Your task to perform on an android device: Search for seafood restaurants on Google Maps Image 0: 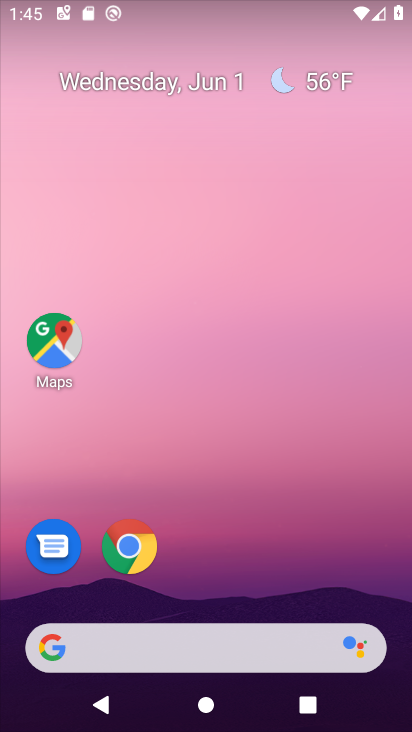
Step 0: click (58, 357)
Your task to perform on an android device: Search for seafood restaurants on Google Maps Image 1: 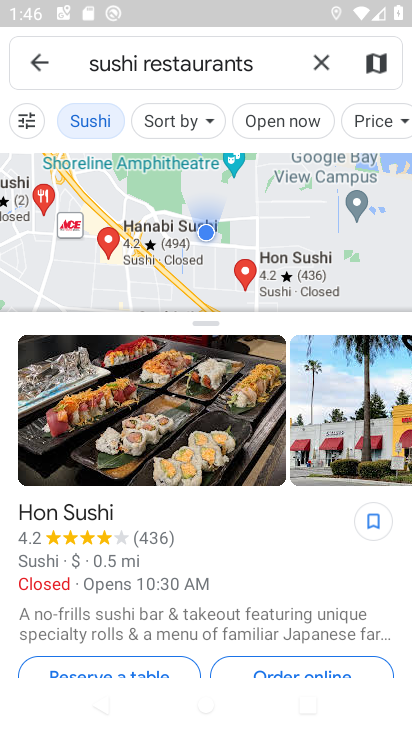
Step 1: click (323, 61)
Your task to perform on an android device: Search for seafood restaurants on Google Maps Image 2: 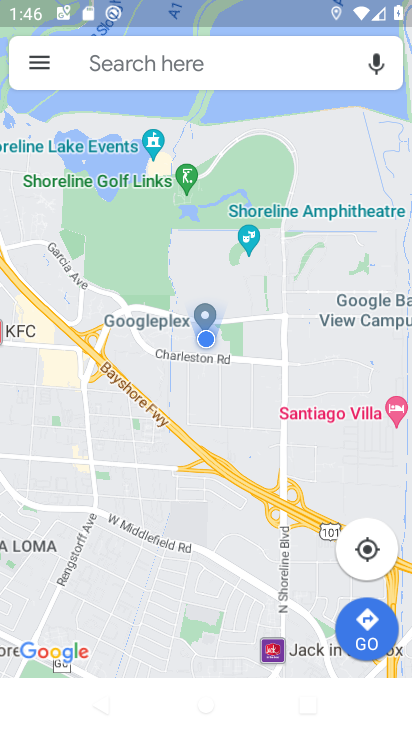
Step 2: type "seafood restaurants"
Your task to perform on an android device: Search for seafood restaurants on Google Maps Image 3: 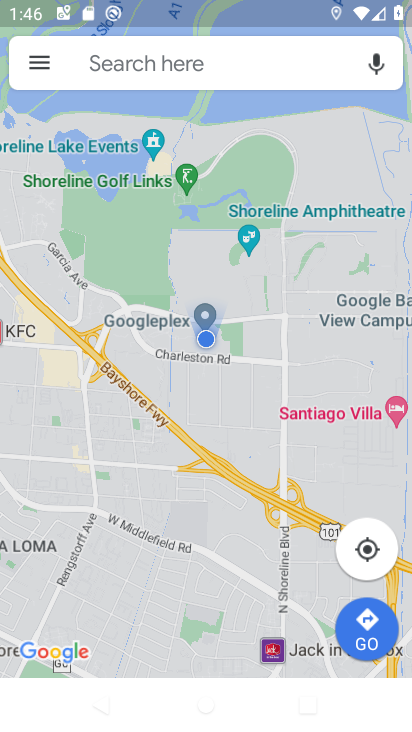
Step 3: click (199, 66)
Your task to perform on an android device: Search for seafood restaurants on Google Maps Image 4: 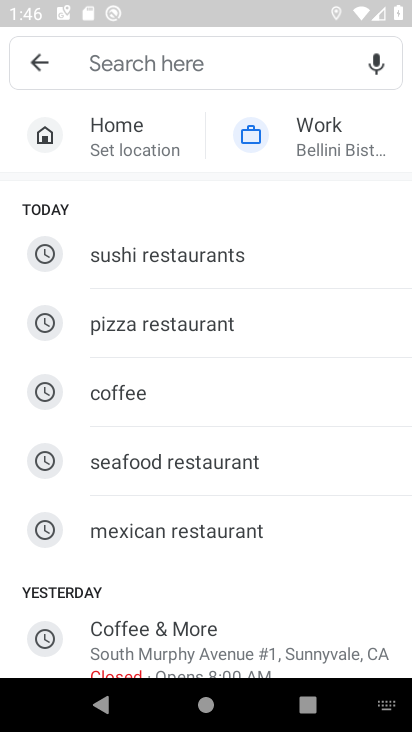
Step 4: click (181, 475)
Your task to perform on an android device: Search for seafood restaurants on Google Maps Image 5: 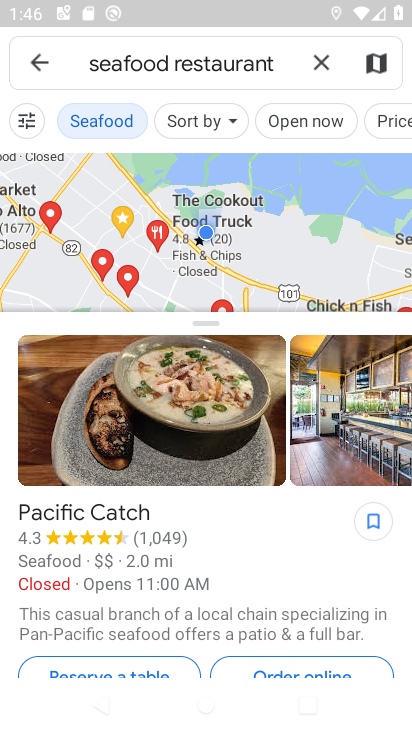
Step 5: task complete